Your task to perform on an android device: remove spam from my inbox in the gmail app Image 0: 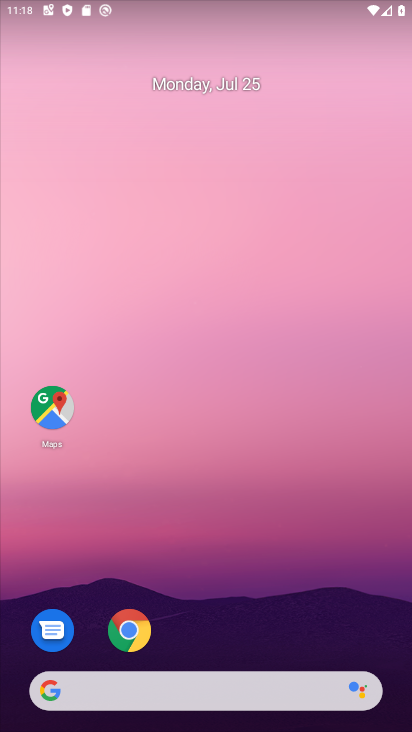
Step 0: drag from (263, 617) to (91, 2)
Your task to perform on an android device: remove spam from my inbox in the gmail app Image 1: 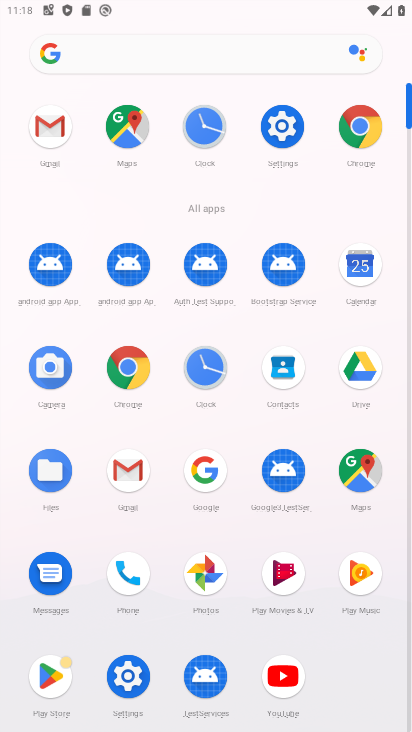
Step 1: click (125, 471)
Your task to perform on an android device: remove spam from my inbox in the gmail app Image 2: 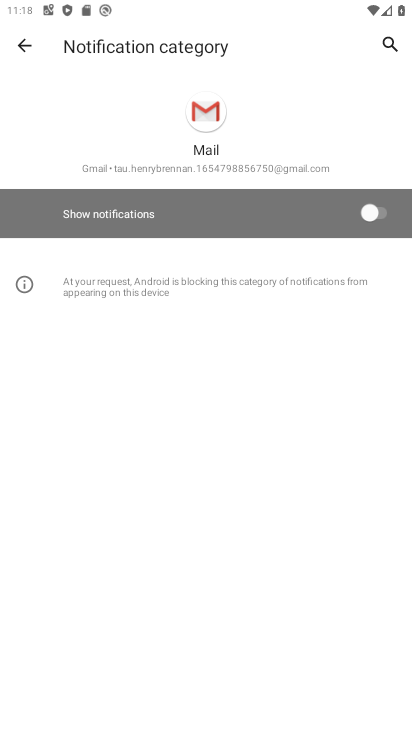
Step 2: click (22, 37)
Your task to perform on an android device: remove spam from my inbox in the gmail app Image 3: 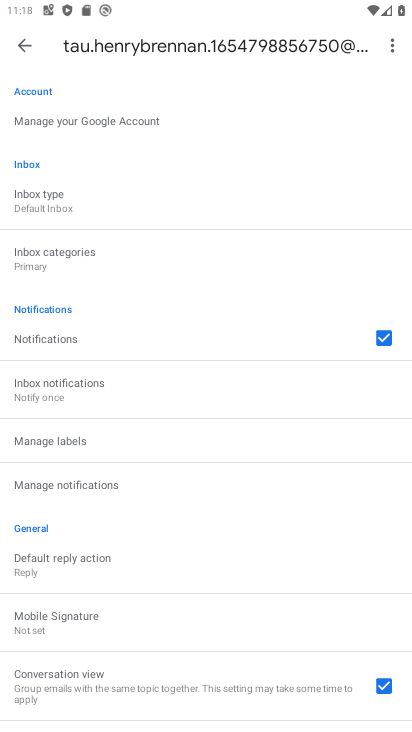
Step 3: click (24, 39)
Your task to perform on an android device: remove spam from my inbox in the gmail app Image 4: 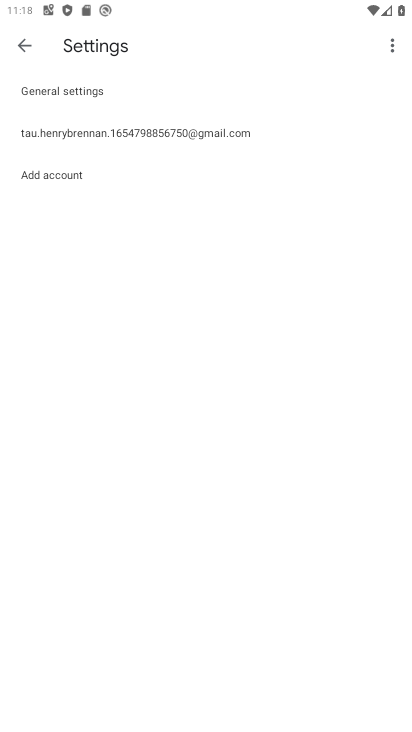
Step 4: click (23, 43)
Your task to perform on an android device: remove spam from my inbox in the gmail app Image 5: 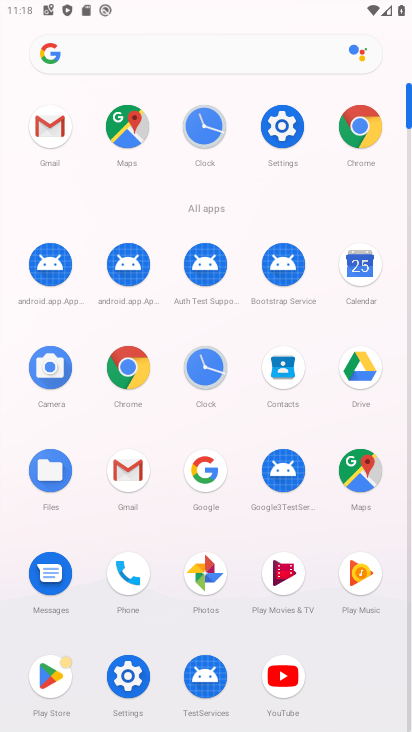
Step 5: click (60, 136)
Your task to perform on an android device: remove spam from my inbox in the gmail app Image 6: 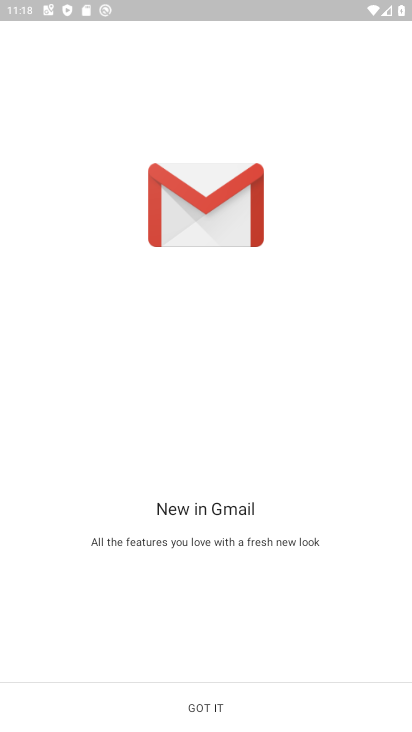
Step 6: click (212, 710)
Your task to perform on an android device: remove spam from my inbox in the gmail app Image 7: 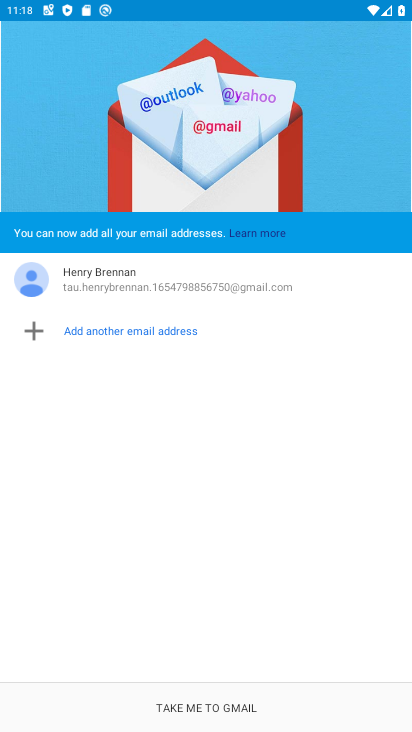
Step 7: click (212, 710)
Your task to perform on an android device: remove spam from my inbox in the gmail app Image 8: 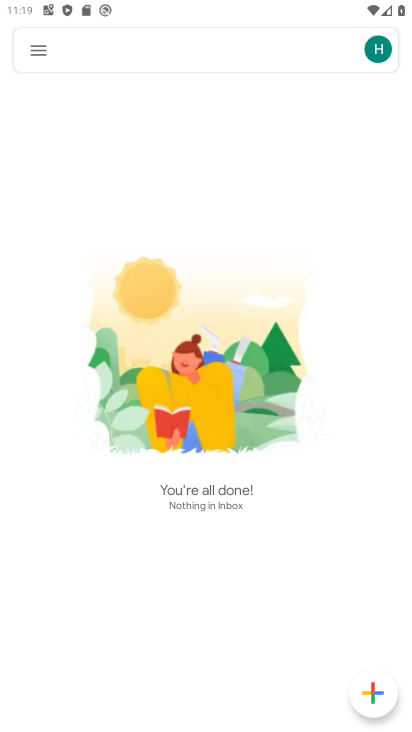
Step 8: click (36, 51)
Your task to perform on an android device: remove spam from my inbox in the gmail app Image 9: 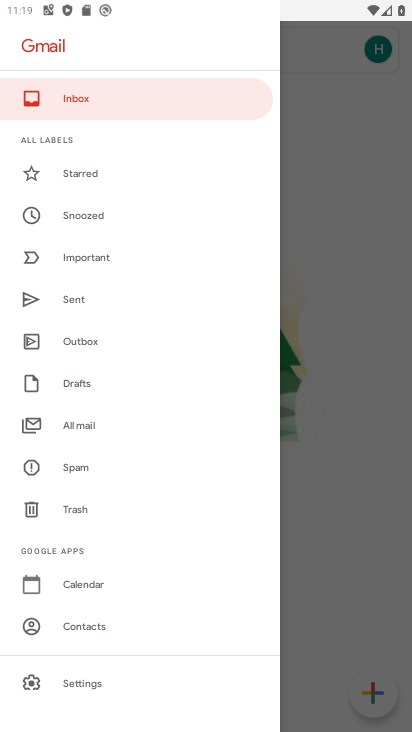
Step 9: click (64, 464)
Your task to perform on an android device: remove spam from my inbox in the gmail app Image 10: 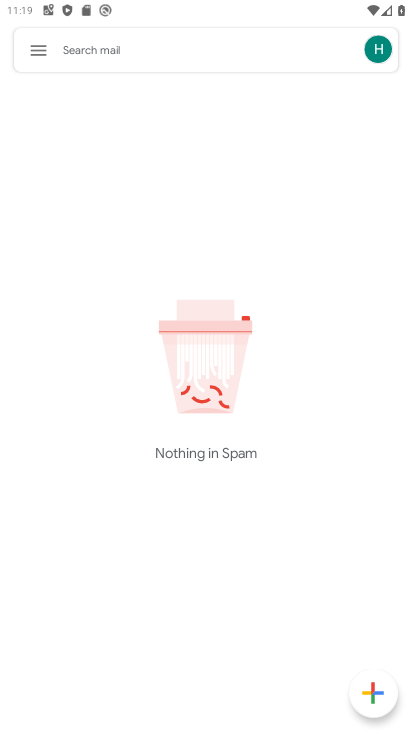
Step 10: task complete